Your task to perform on an android device: Open Youtube and go to the subscriptions tab Image 0: 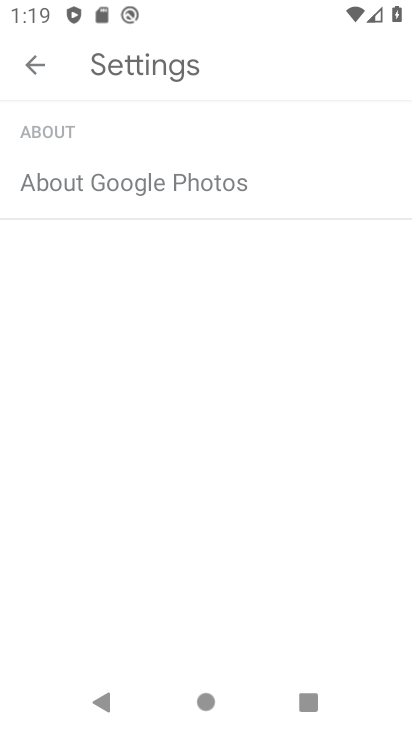
Step 0: drag from (228, 717) to (228, 94)
Your task to perform on an android device: Open Youtube and go to the subscriptions tab Image 1: 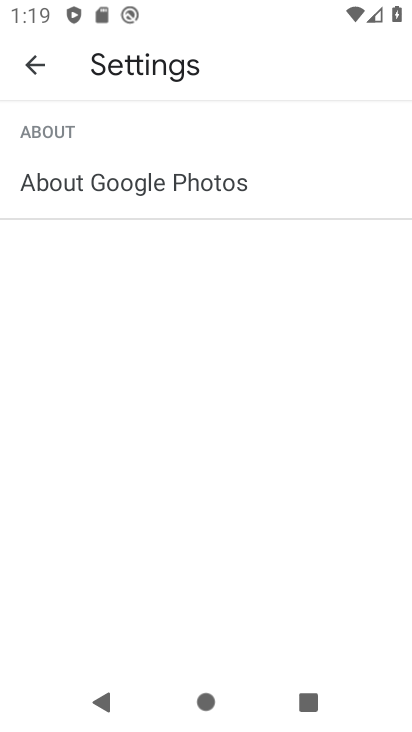
Step 1: press home button
Your task to perform on an android device: Open Youtube and go to the subscriptions tab Image 2: 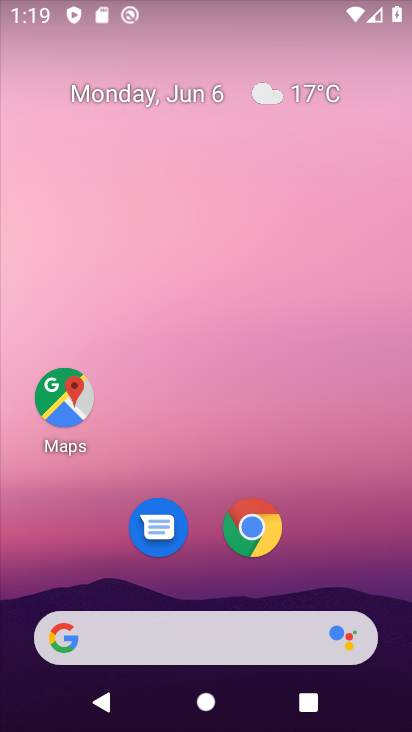
Step 2: drag from (230, 724) to (233, 36)
Your task to perform on an android device: Open Youtube and go to the subscriptions tab Image 3: 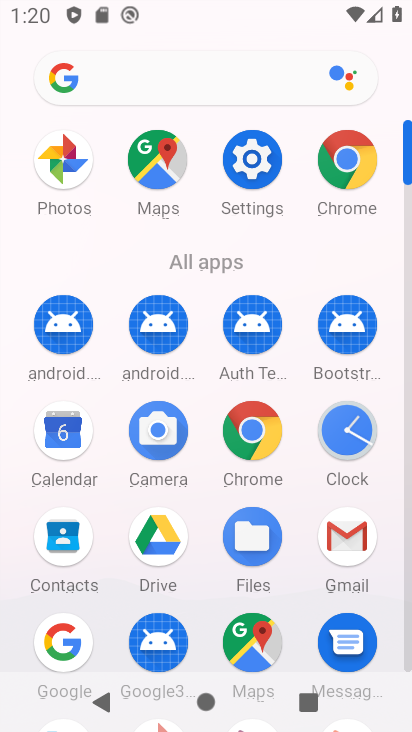
Step 3: drag from (298, 629) to (296, 190)
Your task to perform on an android device: Open Youtube and go to the subscriptions tab Image 4: 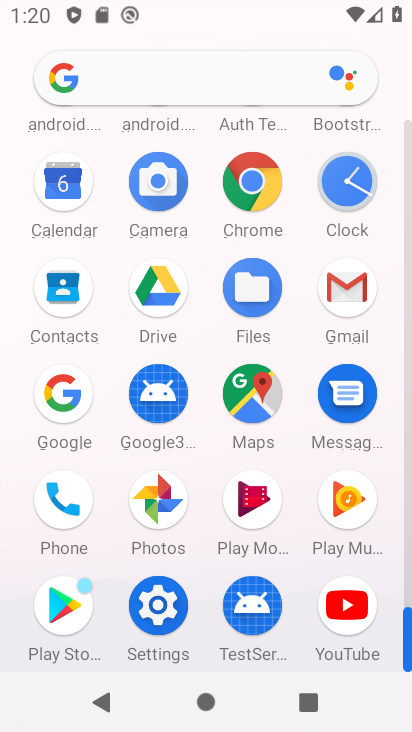
Step 4: click (341, 606)
Your task to perform on an android device: Open Youtube and go to the subscriptions tab Image 5: 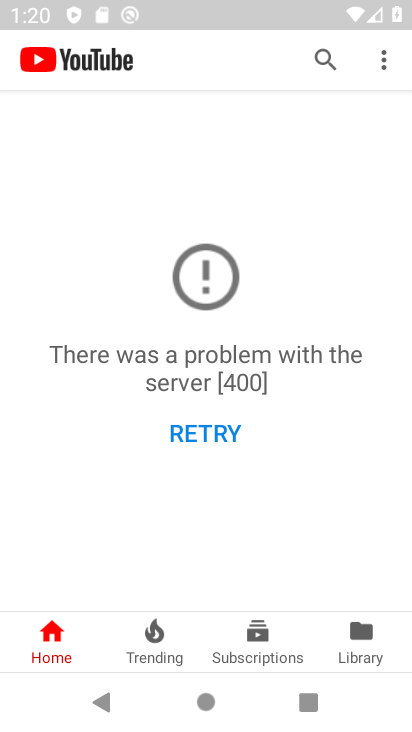
Step 5: click (271, 641)
Your task to perform on an android device: Open Youtube and go to the subscriptions tab Image 6: 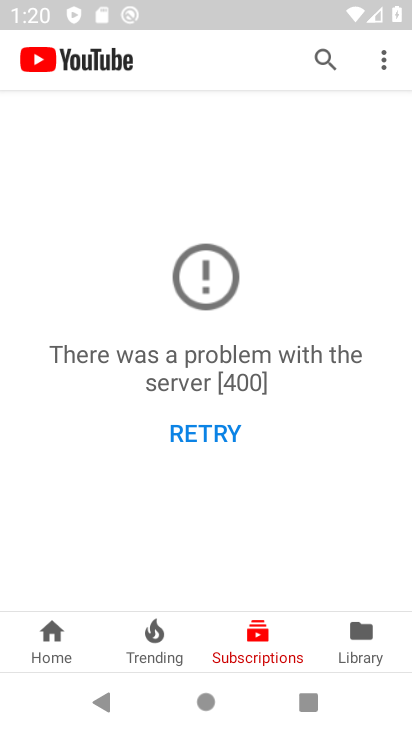
Step 6: click (271, 641)
Your task to perform on an android device: Open Youtube and go to the subscriptions tab Image 7: 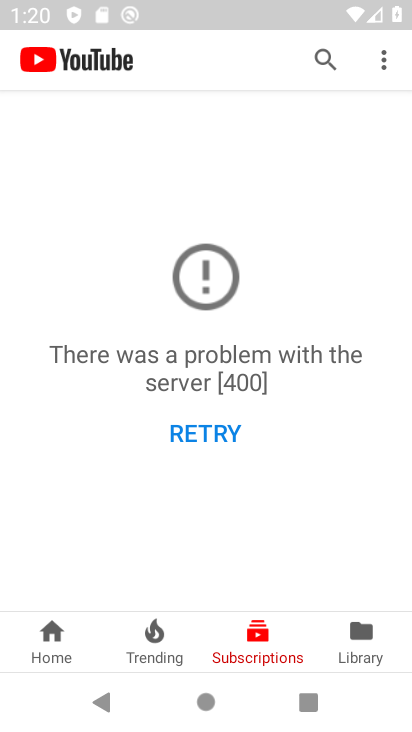
Step 7: task complete